Your task to perform on an android device: Show me popular videos on Youtube Image 0: 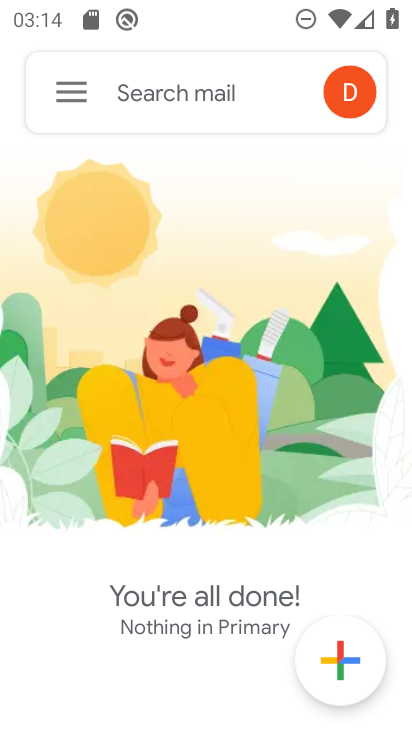
Step 0: press home button
Your task to perform on an android device: Show me popular videos on Youtube Image 1: 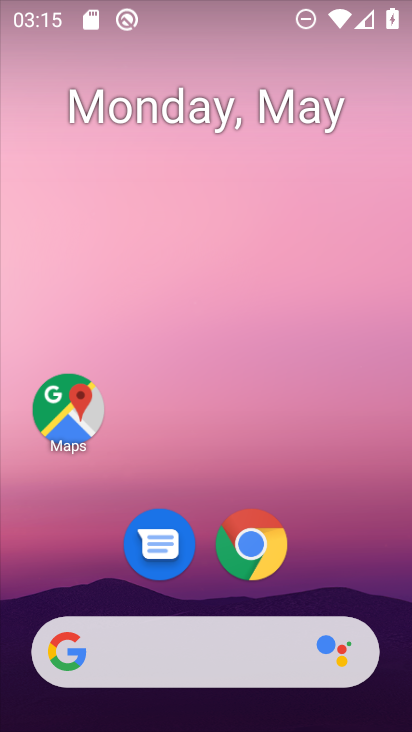
Step 1: drag from (352, 532) to (332, 83)
Your task to perform on an android device: Show me popular videos on Youtube Image 2: 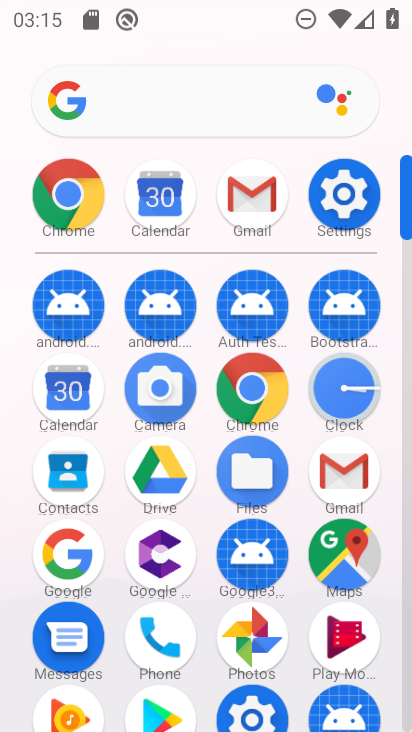
Step 2: drag from (292, 567) to (291, 296)
Your task to perform on an android device: Show me popular videos on Youtube Image 3: 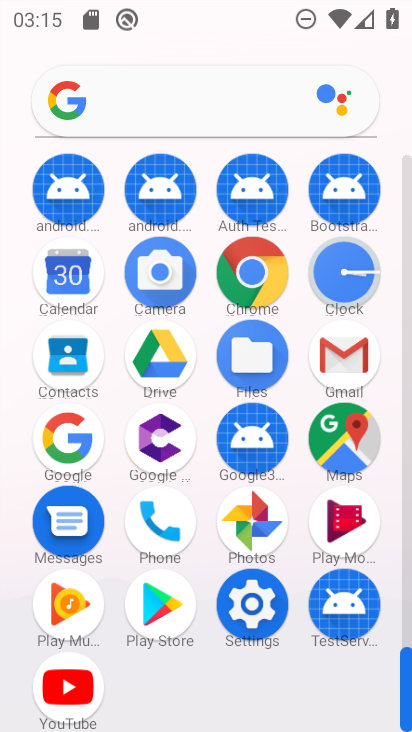
Step 3: click (84, 694)
Your task to perform on an android device: Show me popular videos on Youtube Image 4: 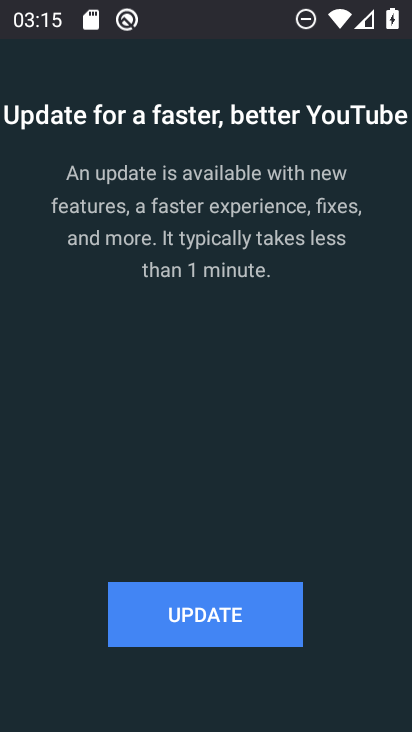
Step 4: click (217, 619)
Your task to perform on an android device: Show me popular videos on Youtube Image 5: 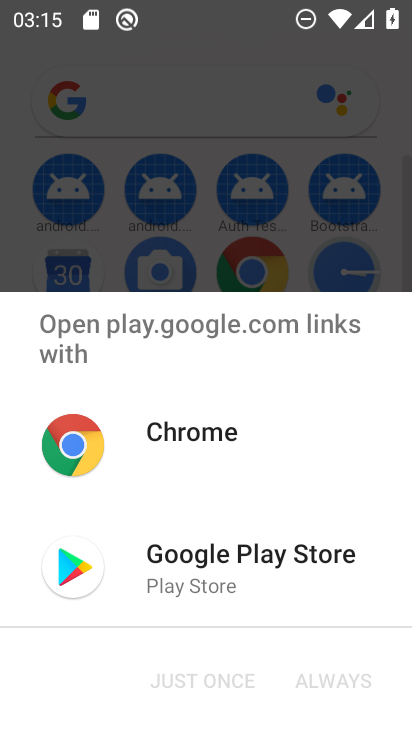
Step 5: click (192, 558)
Your task to perform on an android device: Show me popular videos on Youtube Image 6: 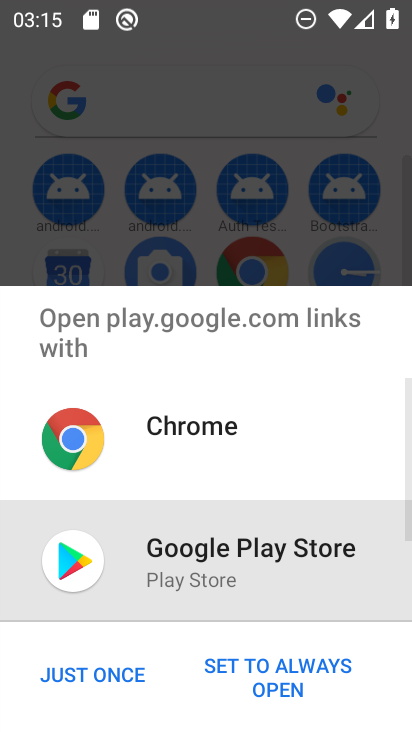
Step 6: click (94, 681)
Your task to perform on an android device: Show me popular videos on Youtube Image 7: 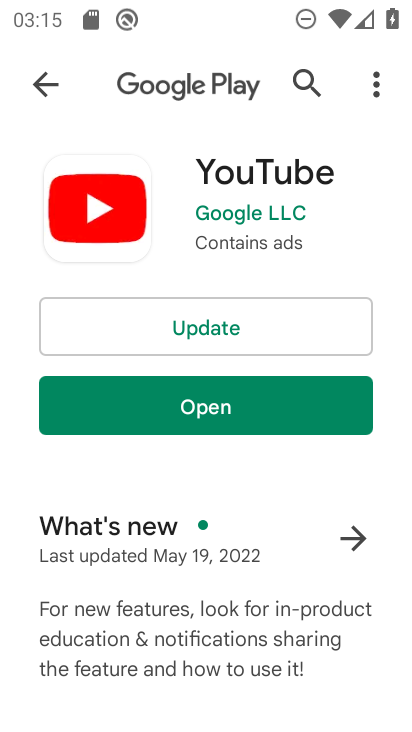
Step 7: click (258, 334)
Your task to perform on an android device: Show me popular videos on Youtube Image 8: 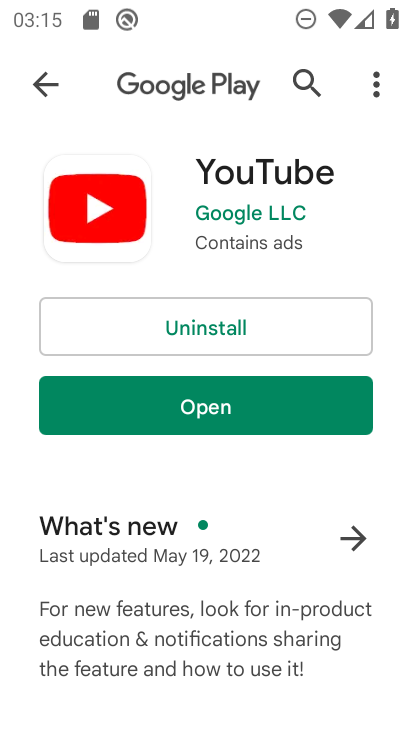
Step 8: click (268, 424)
Your task to perform on an android device: Show me popular videos on Youtube Image 9: 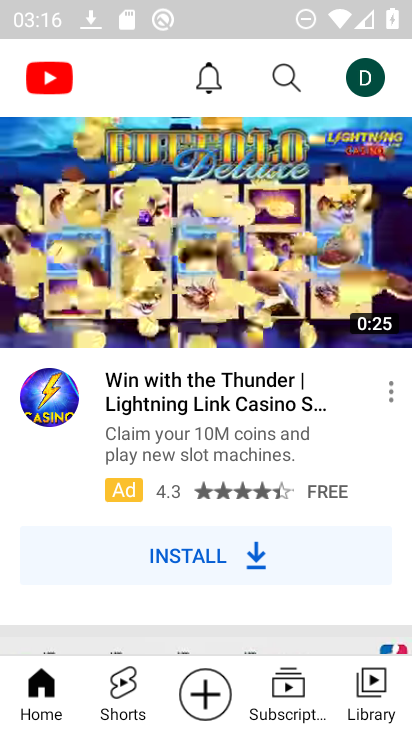
Step 9: task complete